Your task to perform on an android device: change the upload size in google photos Image 0: 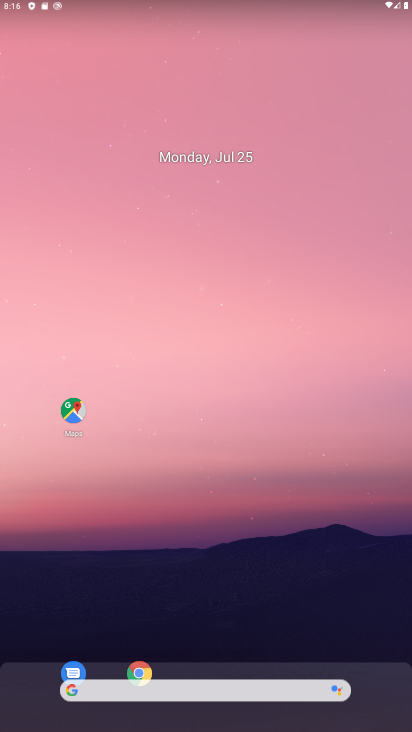
Step 0: drag from (240, 658) to (240, 60)
Your task to perform on an android device: change the upload size in google photos Image 1: 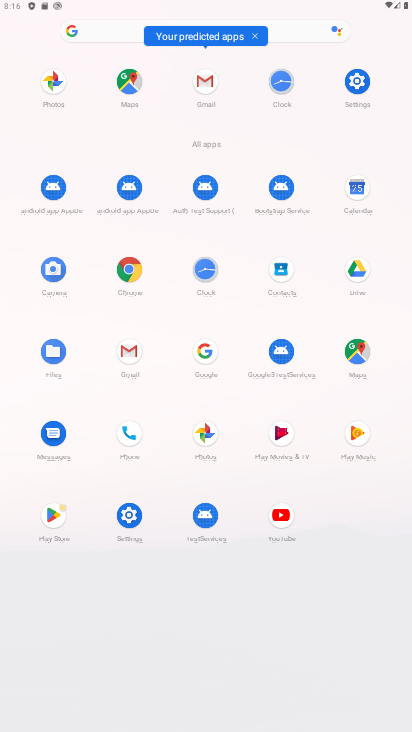
Step 1: click (56, 76)
Your task to perform on an android device: change the upload size in google photos Image 2: 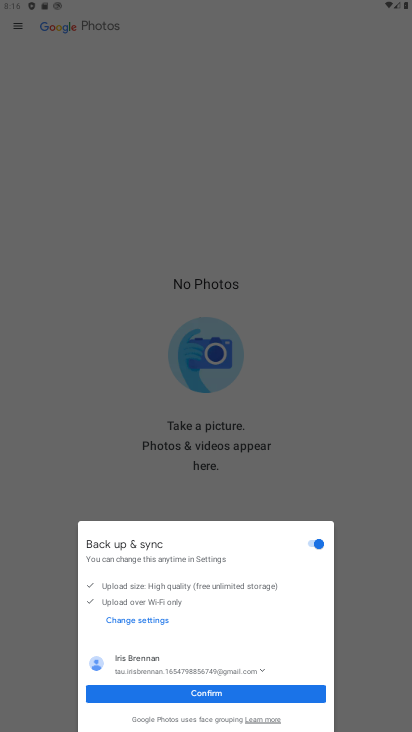
Step 2: click (204, 697)
Your task to perform on an android device: change the upload size in google photos Image 3: 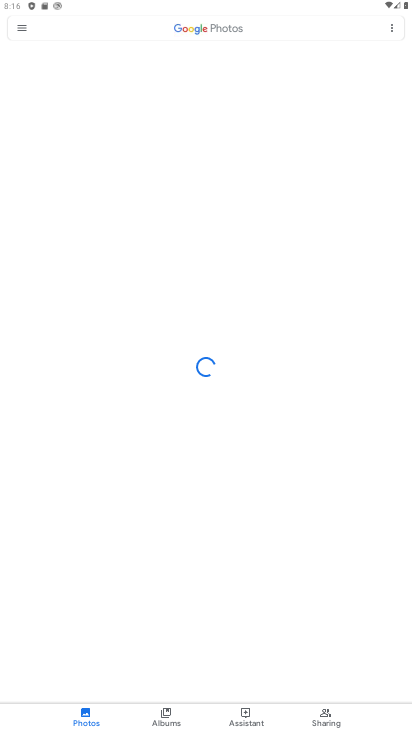
Step 3: click (16, 25)
Your task to perform on an android device: change the upload size in google photos Image 4: 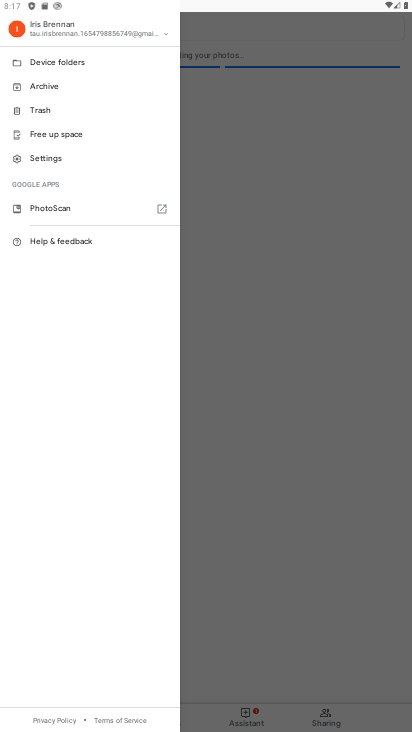
Step 4: click (60, 150)
Your task to perform on an android device: change the upload size in google photos Image 5: 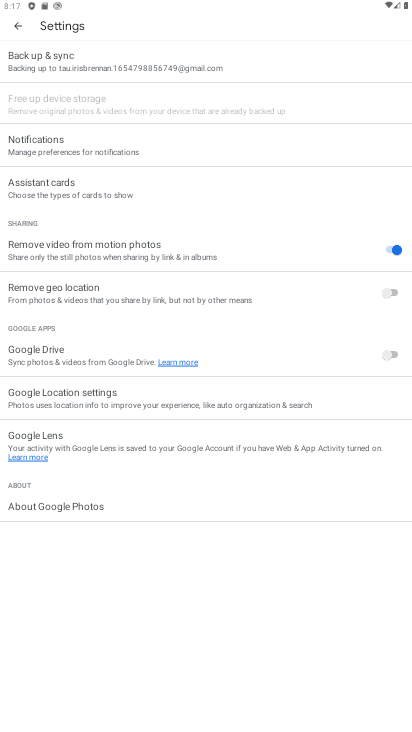
Step 5: click (107, 63)
Your task to perform on an android device: change the upload size in google photos Image 6: 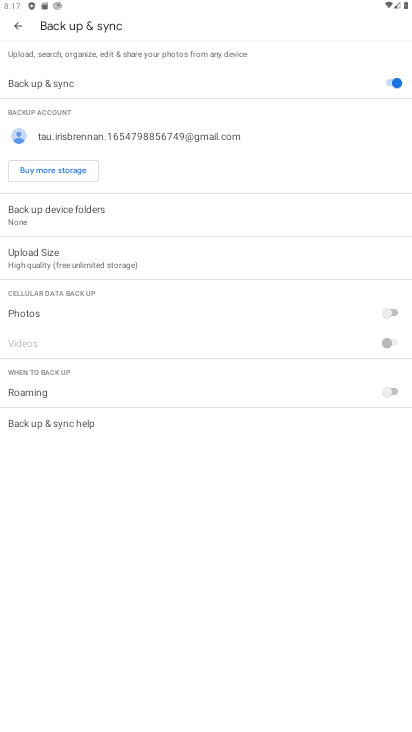
Step 6: click (131, 266)
Your task to perform on an android device: change the upload size in google photos Image 7: 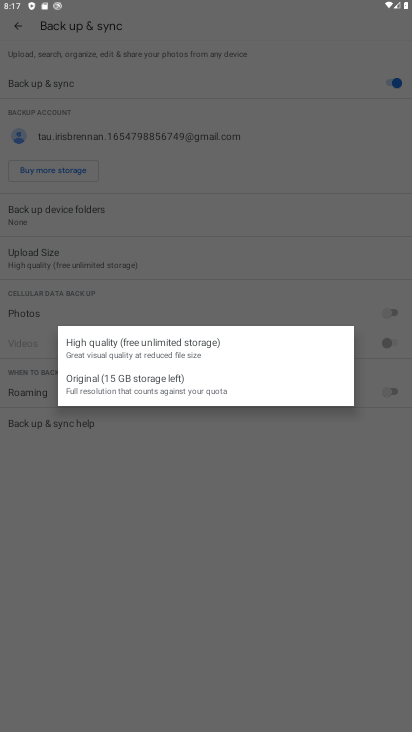
Step 7: click (170, 346)
Your task to perform on an android device: change the upload size in google photos Image 8: 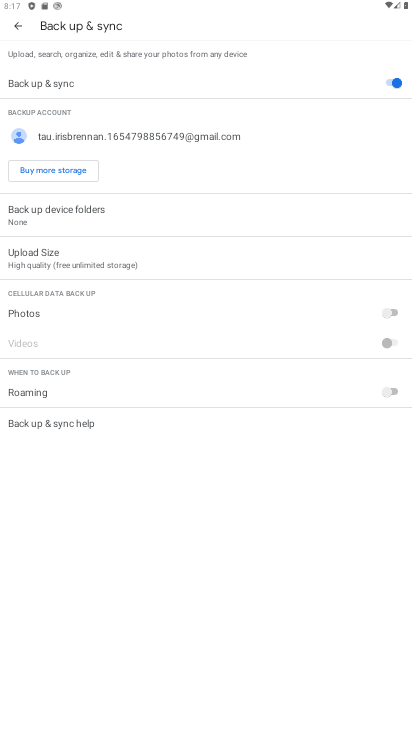
Step 8: task complete